Your task to perform on an android device: turn on priority inbox in the gmail app Image 0: 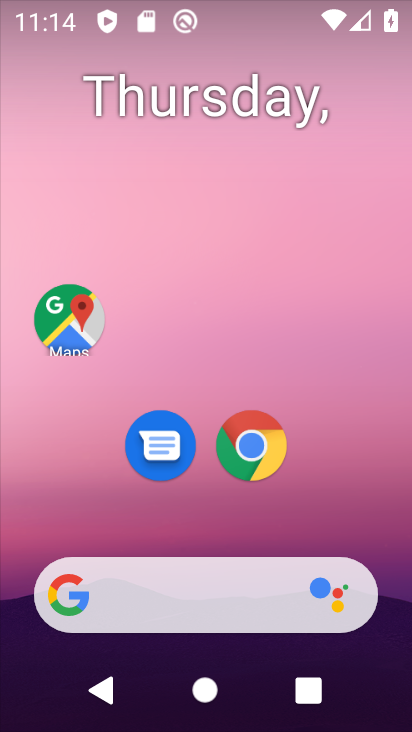
Step 0: drag from (73, 542) to (192, 103)
Your task to perform on an android device: turn on priority inbox in the gmail app Image 1: 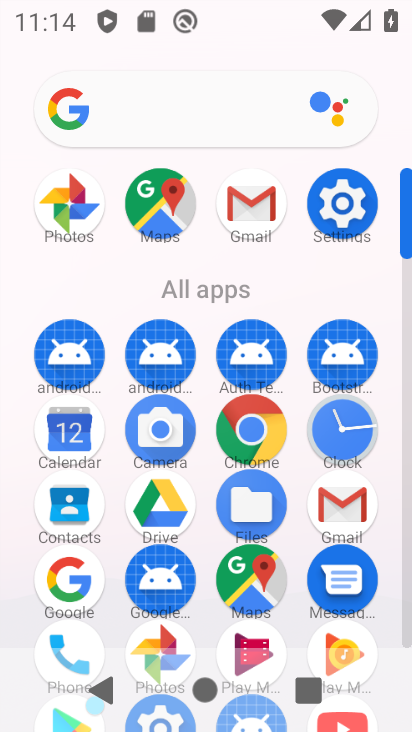
Step 1: drag from (150, 610) to (208, 354)
Your task to perform on an android device: turn on priority inbox in the gmail app Image 2: 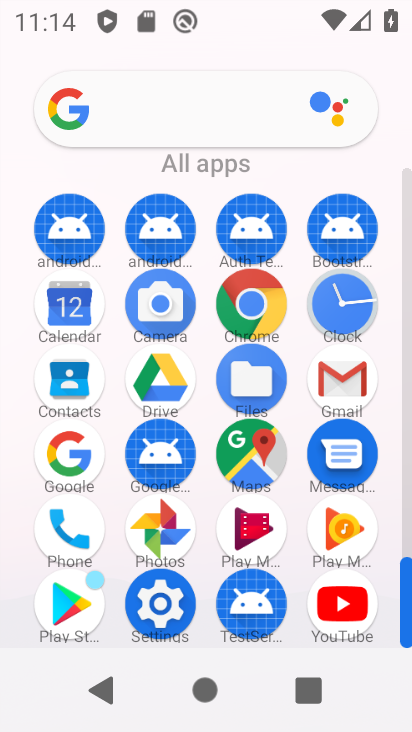
Step 2: click (335, 372)
Your task to perform on an android device: turn on priority inbox in the gmail app Image 3: 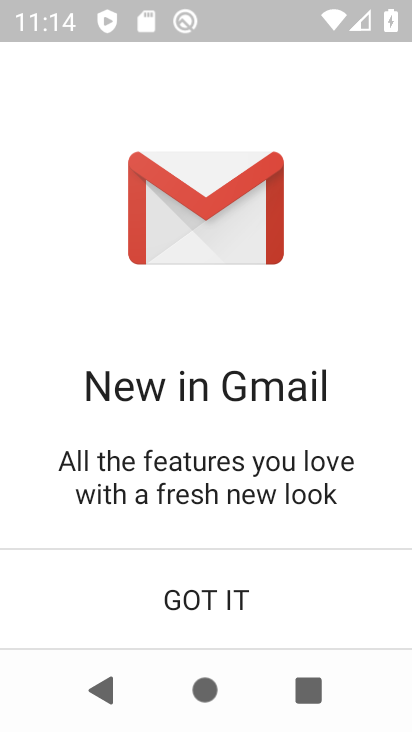
Step 3: click (199, 607)
Your task to perform on an android device: turn on priority inbox in the gmail app Image 4: 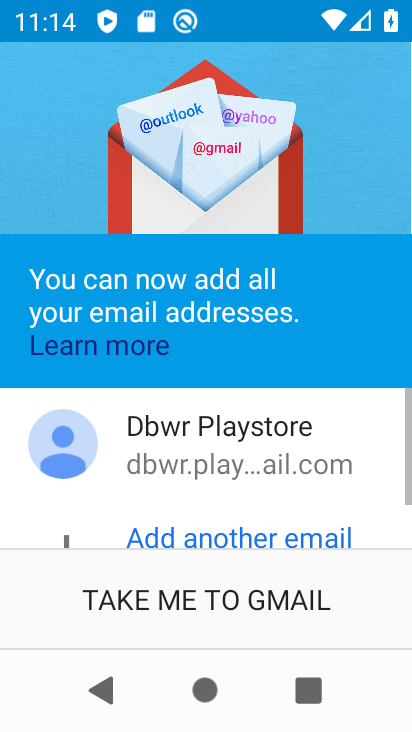
Step 4: click (200, 607)
Your task to perform on an android device: turn on priority inbox in the gmail app Image 5: 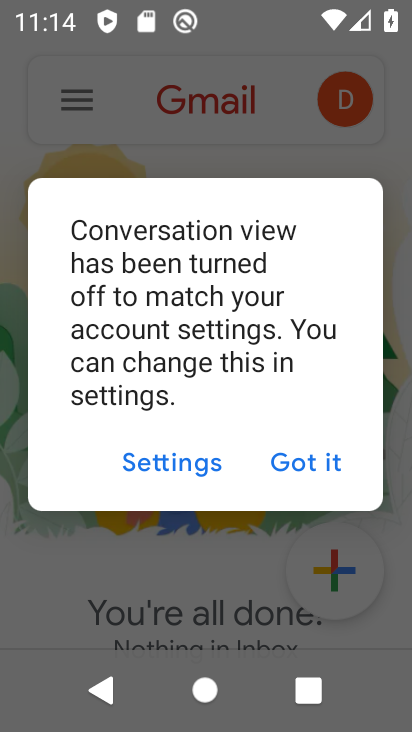
Step 5: click (330, 467)
Your task to perform on an android device: turn on priority inbox in the gmail app Image 6: 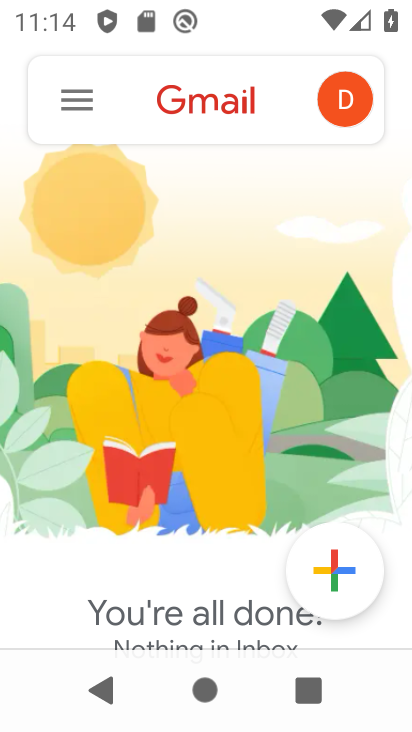
Step 6: click (330, 467)
Your task to perform on an android device: turn on priority inbox in the gmail app Image 7: 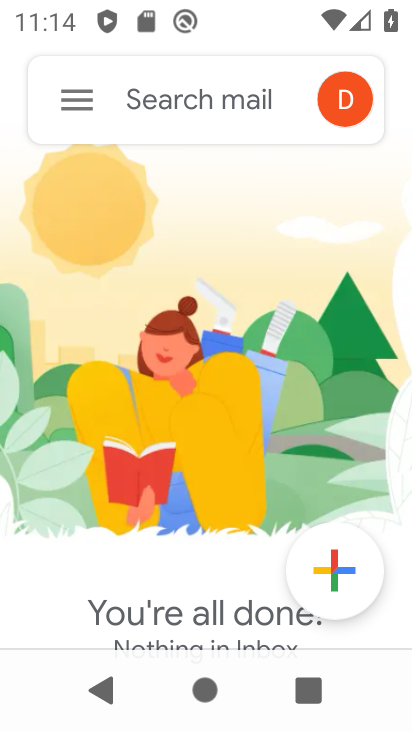
Step 7: click (80, 93)
Your task to perform on an android device: turn on priority inbox in the gmail app Image 8: 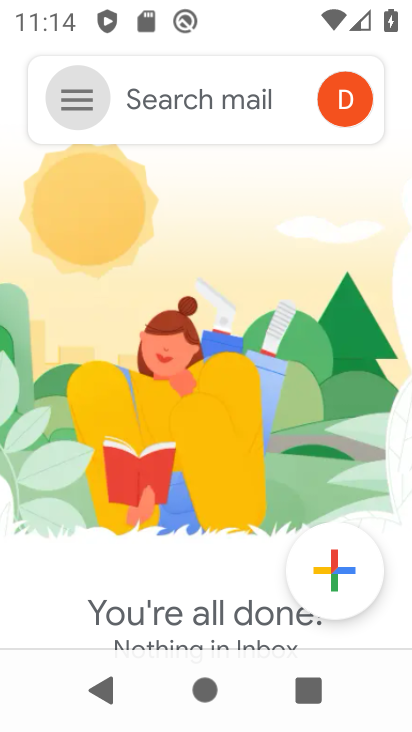
Step 8: click (80, 93)
Your task to perform on an android device: turn on priority inbox in the gmail app Image 9: 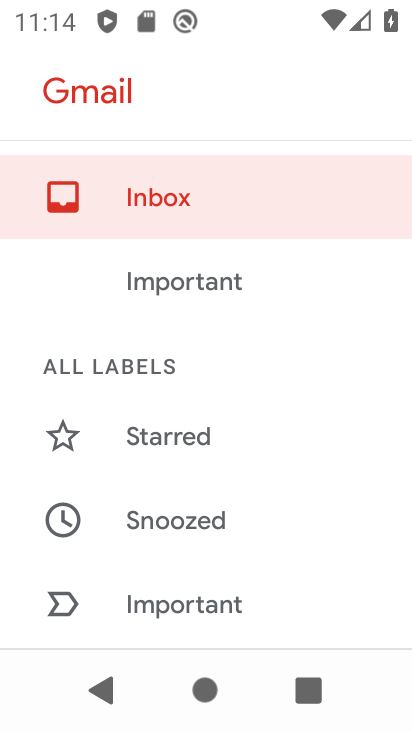
Step 9: drag from (154, 508) to (259, 190)
Your task to perform on an android device: turn on priority inbox in the gmail app Image 10: 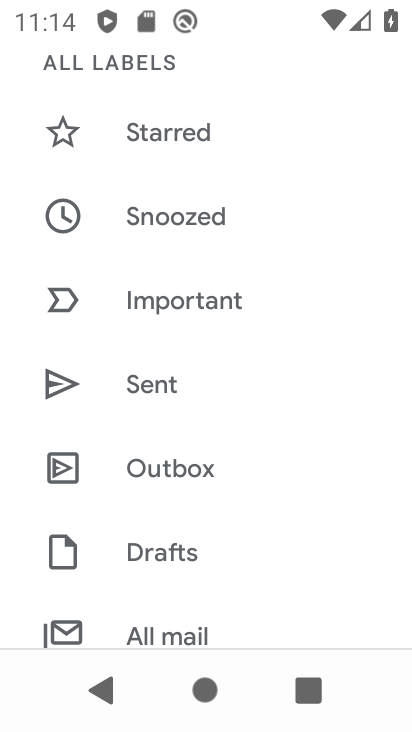
Step 10: drag from (174, 584) to (290, 245)
Your task to perform on an android device: turn on priority inbox in the gmail app Image 11: 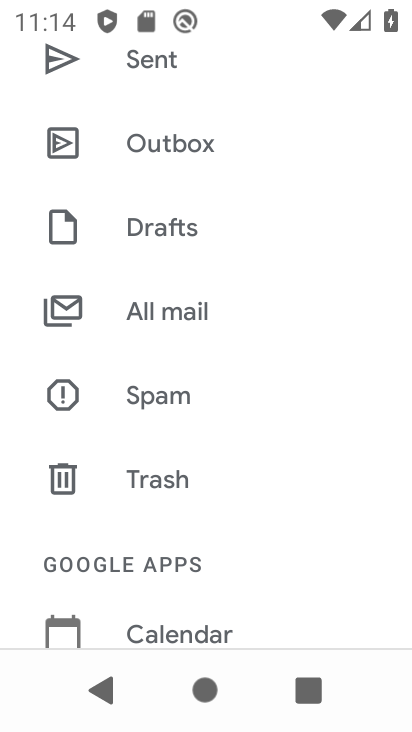
Step 11: drag from (194, 551) to (314, 192)
Your task to perform on an android device: turn on priority inbox in the gmail app Image 12: 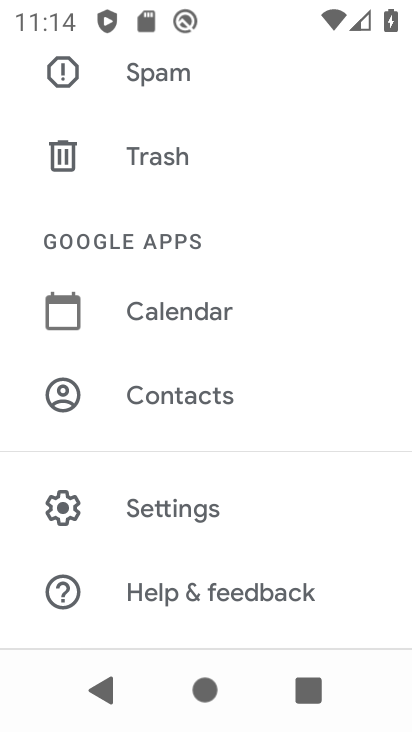
Step 12: click (208, 508)
Your task to perform on an android device: turn on priority inbox in the gmail app Image 13: 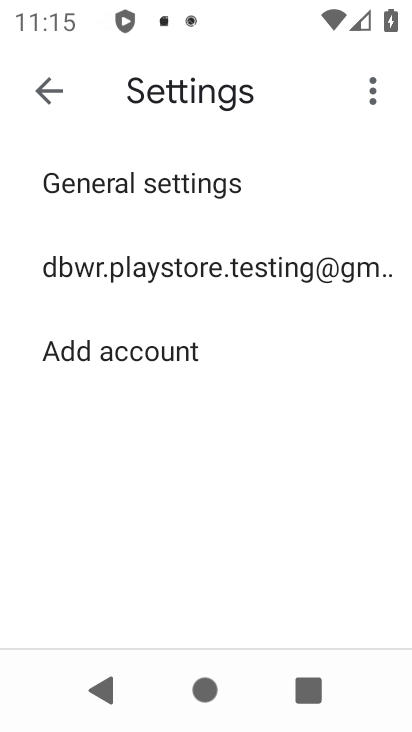
Step 13: click (197, 269)
Your task to perform on an android device: turn on priority inbox in the gmail app Image 14: 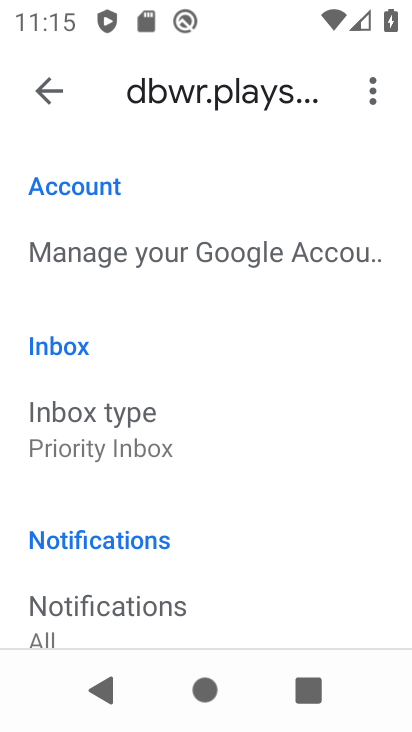
Step 14: click (177, 408)
Your task to perform on an android device: turn on priority inbox in the gmail app Image 15: 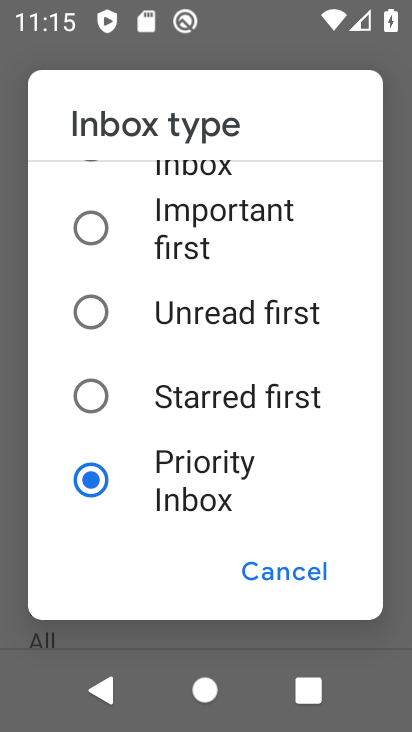
Step 15: task complete